Your task to perform on an android device: turn on priority inbox in the gmail app Image 0: 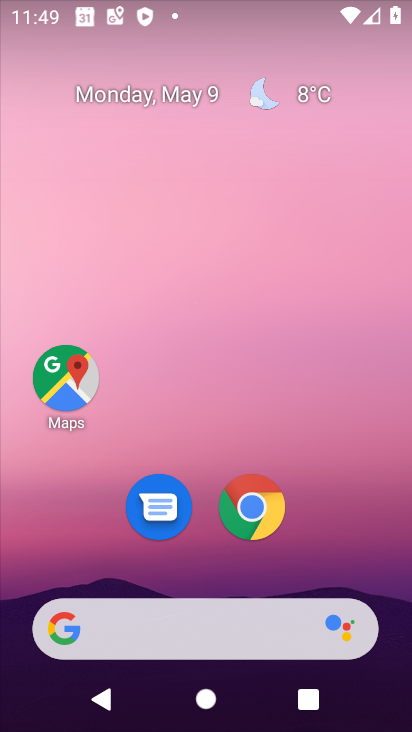
Step 0: drag from (295, 415) to (263, 46)
Your task to perform on an android device: turn on priority inbox in the gmail app Image 1: 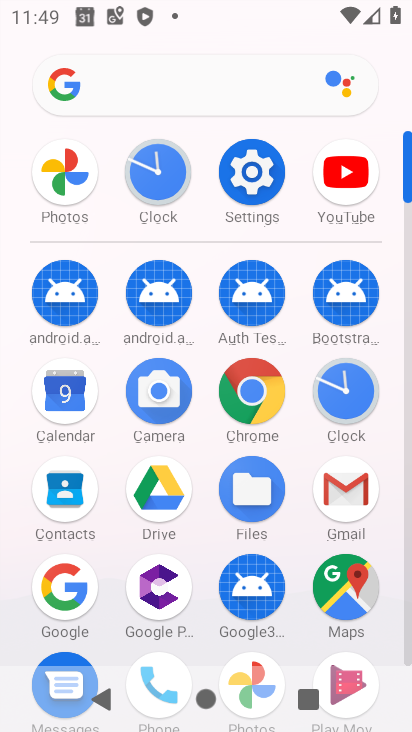
Step 1: click (336, 500)
Your task to perform on an android device: turn on priority inbox in the gmail app Image 2: 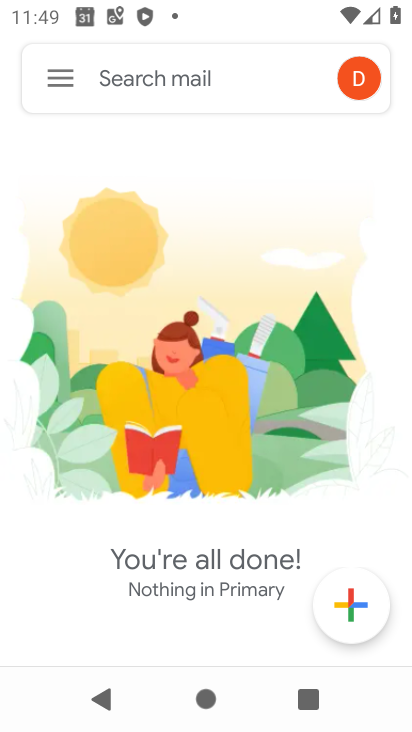
Step 2: click (61, 80)
Your task to perform on an android device: turn on priority inbox in the gmail app Image 3: 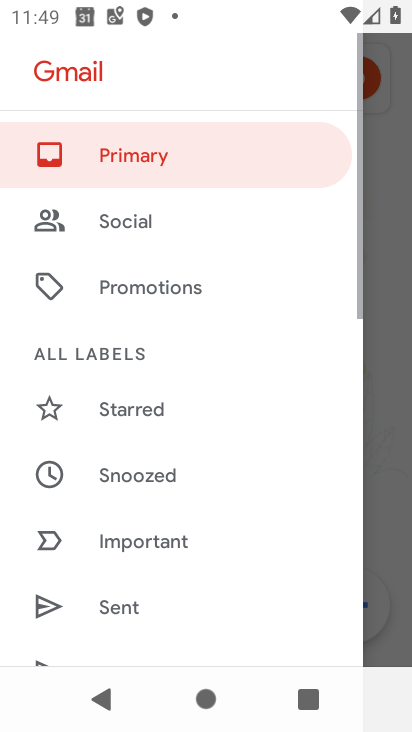
Step 3: drag from (207, 552) to (199, 220)
Your task to perform on an android device: turn on priority inbox in the gmail app Image 4: 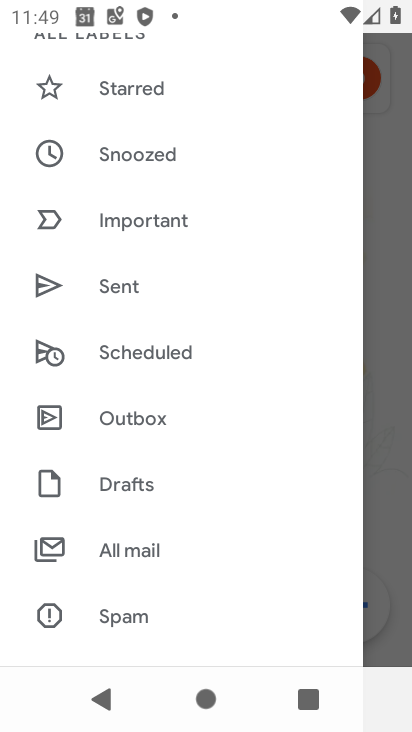
Step 4: drag from (206, 597) to (200, 231)
Your task to perform on an android device: turn on priority inbox in the gmail app Image 5: 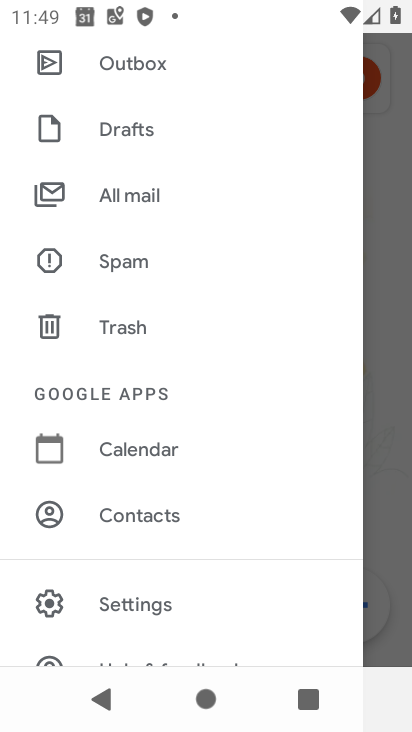
Step 5: click (170, 610)
Your task to perform on an android device: turn on priority inbox in the gmail app Image 6: 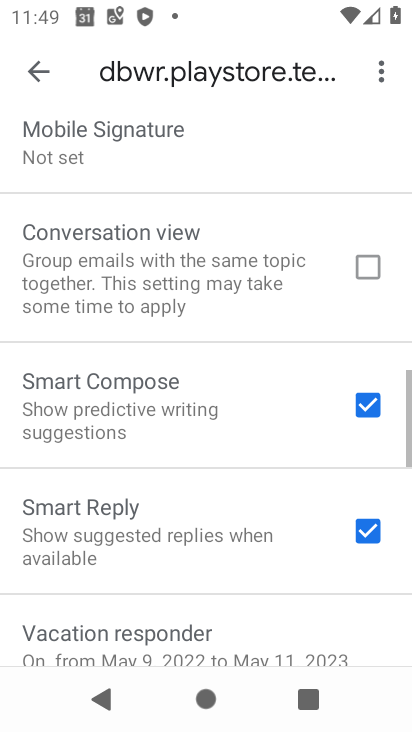
Step 6: drag from (202, 207) to (187, 469)
Your task to perform on an android device: turn on priority inbox in the gmail app Image 7: 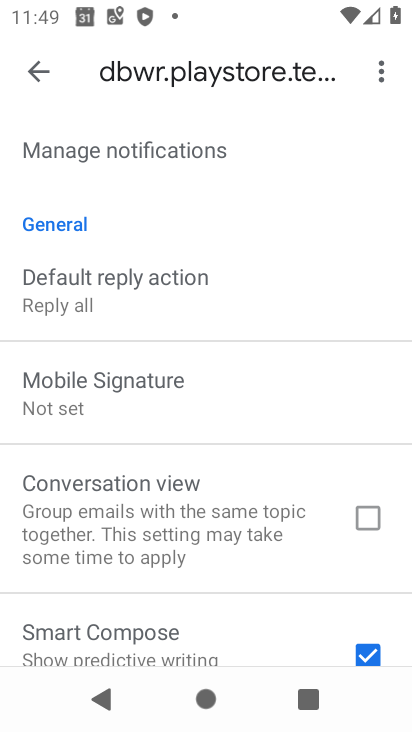
Step 7: drag from (179, 214) to (180, 461)
Your task to perform on an android device: turn on priority inbox in the gmail app Image 8: 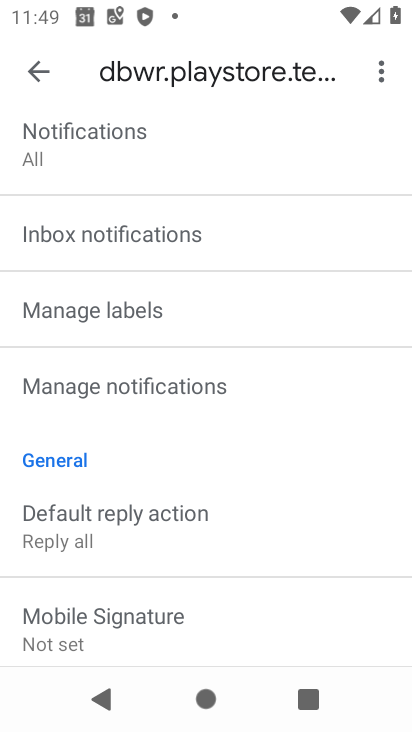
Step 8: drag from (190, 214) to (195, 607)
Your task to perform on an android device: turn on priority inbox in the gmail app Image 9: 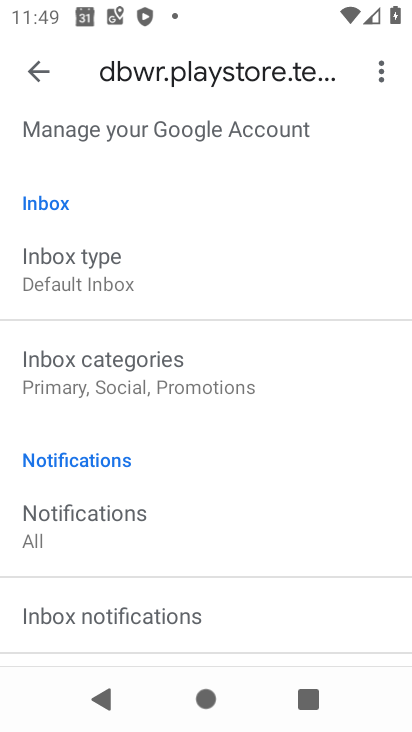
Step 9: click (149, 281)
Your task to perform on an android device: turn on priority inbox in the gmail app Image 10: 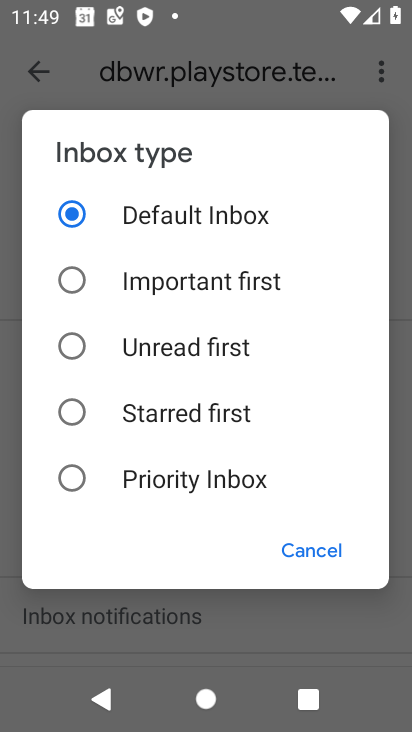
Step 10: click (81, 472)
Your task to perform on an android device: turn on priority inbox in the gmail app Image 11: 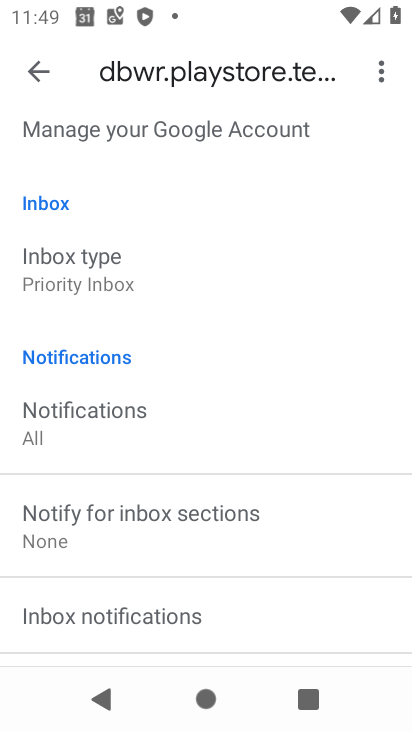
Step 11: task complete